Your task to perform on an android device: change keyboard looks Image 0: 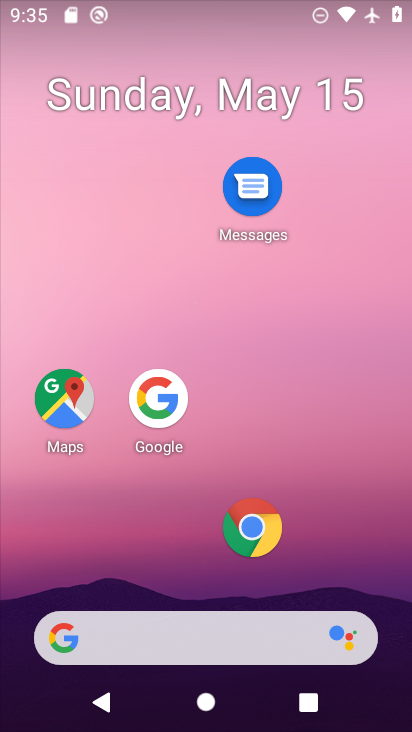
Step 0: press home button
Your task to perform on an android device: change keyboard looks Image 1: 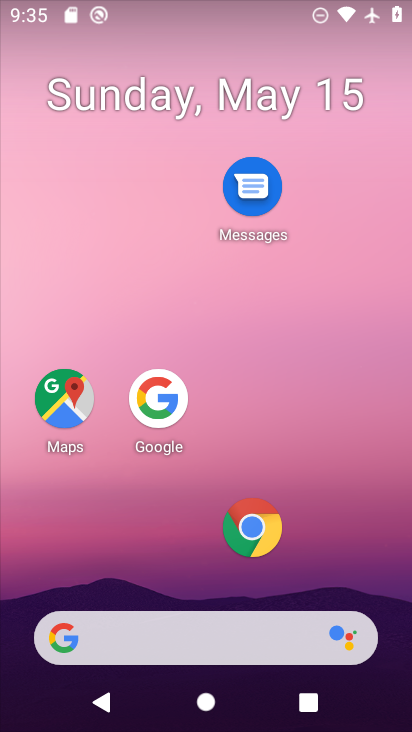
Step 1: drag from (161, 640) to (315, 244)
Your task to perform on an android device: change keyboard looks Image 2: 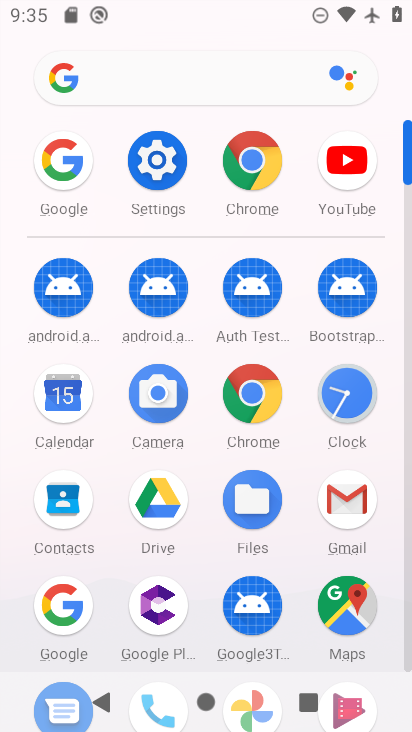
Step 2: click (158, 177)
Your task to perform on an android device: change keyboard looks Image 3: 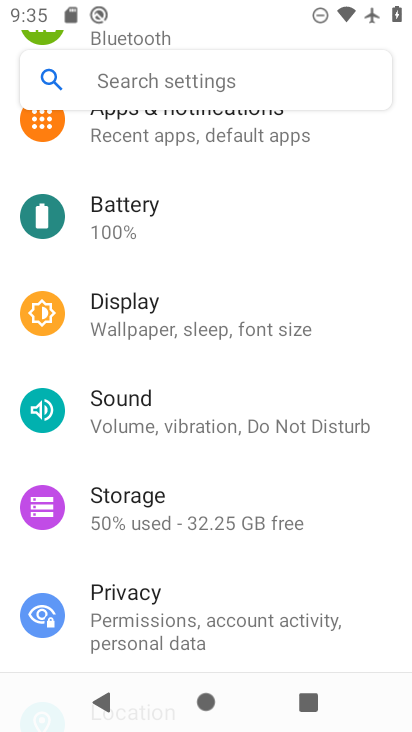
Step 3: drag from (273, 601) to (380, 0)
Your task to perform on an android device: change keyboard looks Image 4: 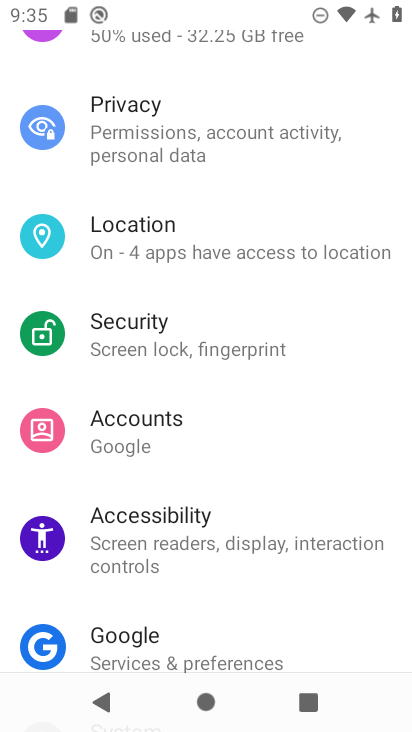
Step 4: drag from (254, 465) to (360, 124)
Your task to perform on an android device: change keyboard looks Image 5: 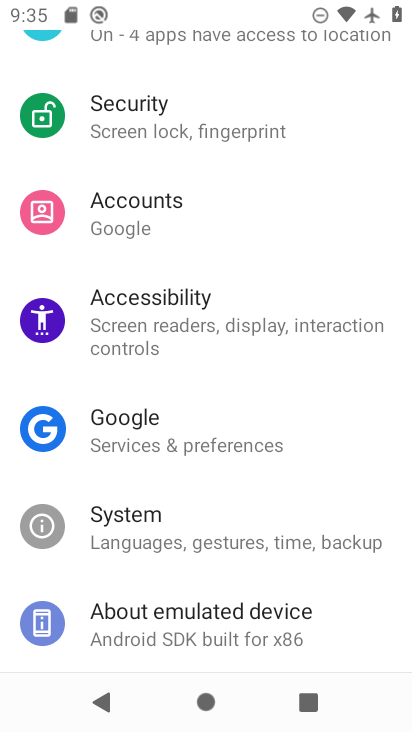
Step 5: click (159, 528)
Your task to perform on an android device: change keyboard looks Image 6: 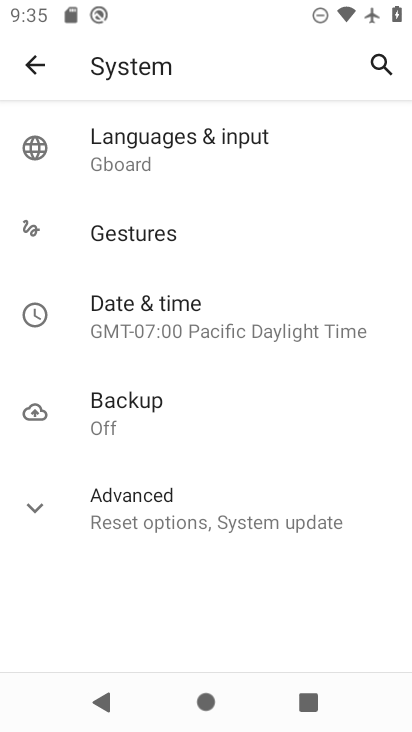
Step 6: click (148, 149)
Your task to perform on an android device: change keyboard looks Image 7: 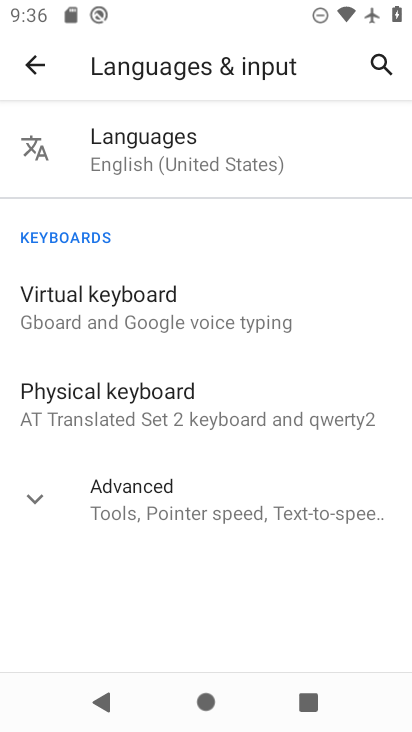
Step 7: click (163, 312)
Your task to perform on an android device: change keyboard looks Image 8: 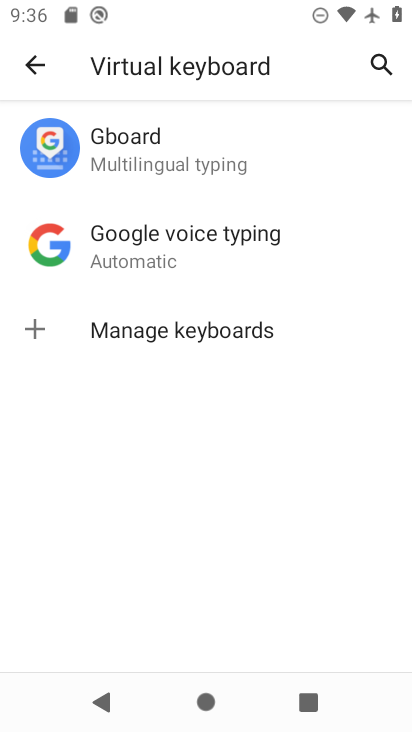
Step 8: click (138, 164)
Your task to perform on an android device: change keyboard looks Image 9: 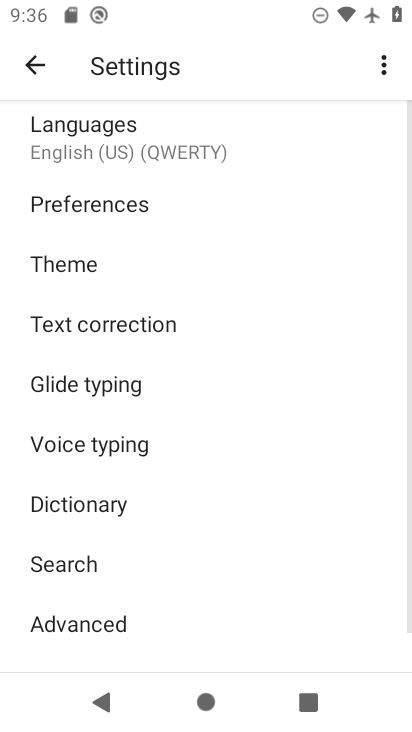
Step 9: click (80, 265)
Your task to perform on an android device: change keyboard looks Image 10: 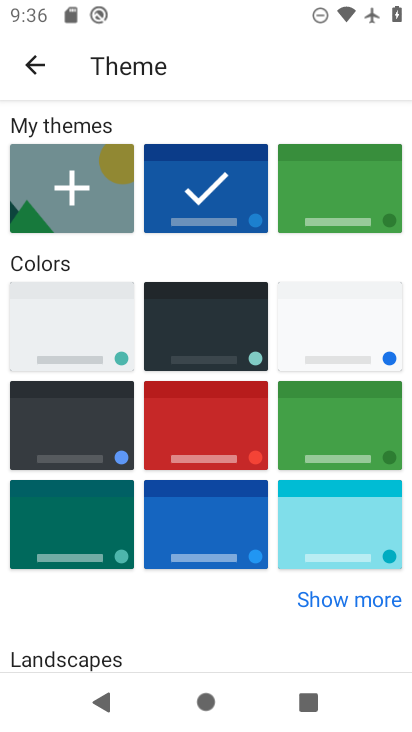
Step 10: click (312, 522)
Your task to perform on an android device: change keyboard looks Image 11: 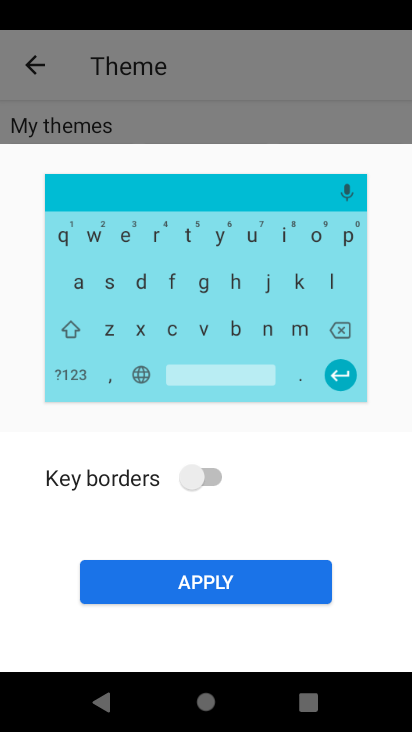
Step 11: click (232, 583)
Your task to perform on an android device: change keyboard looks Image 12: 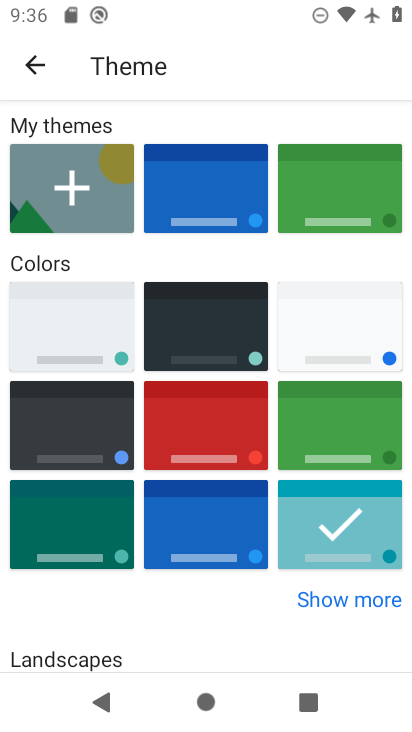
Step 12: task complete